Your task to perform on an android device: Open the stopwatch Image 0: 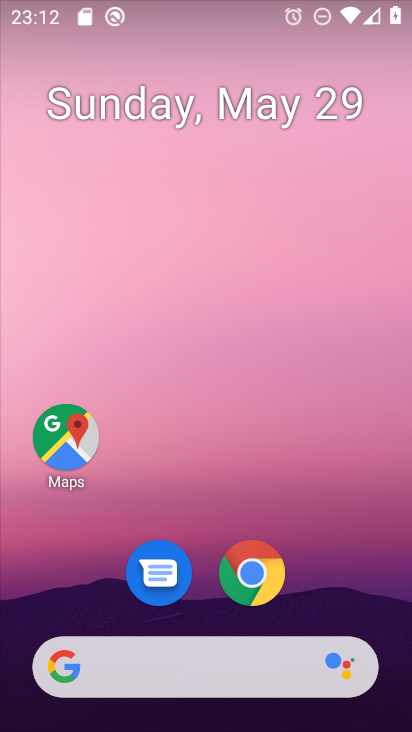
Step 0: drag from (219, 497) to (232, 0)
Your task to perform on an android device: Open the stopwatch Image 1: 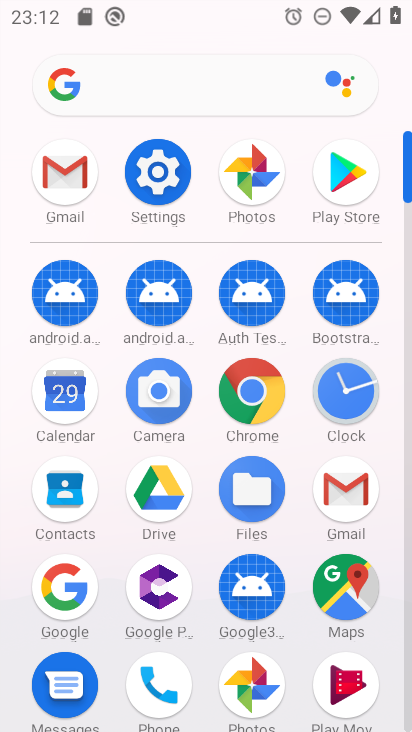
Step 1: click (349, 385)
Your task to perform on an android device: Open the stopwatch Image 2: 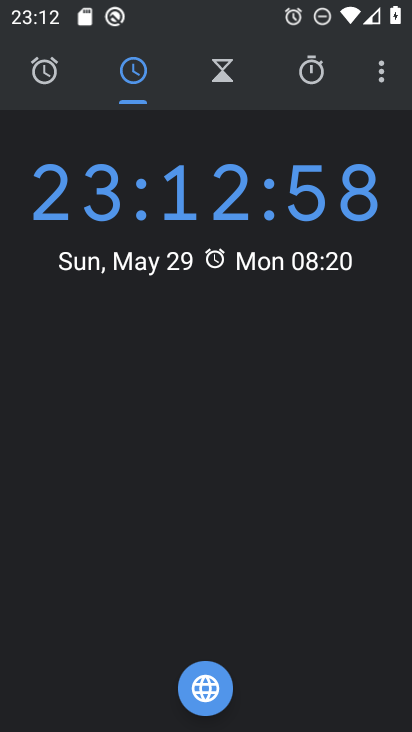
Step 2: click (312, 76)
Your task to perform on an android device: Open the stopwatch Image 3: 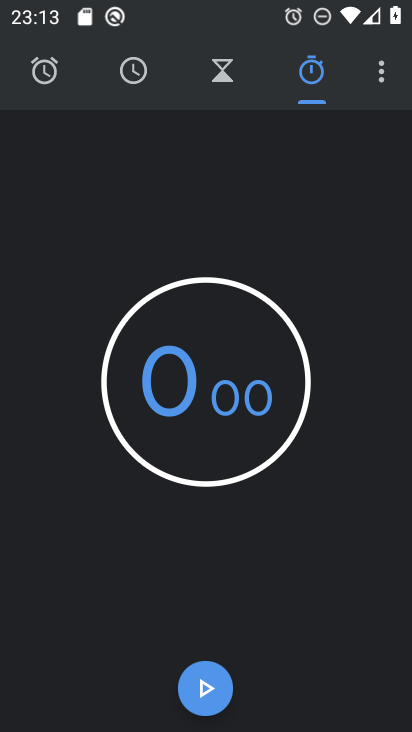
Step 3: task complete